Your task to perform on an android device: clear history in the chrome app Image 0: 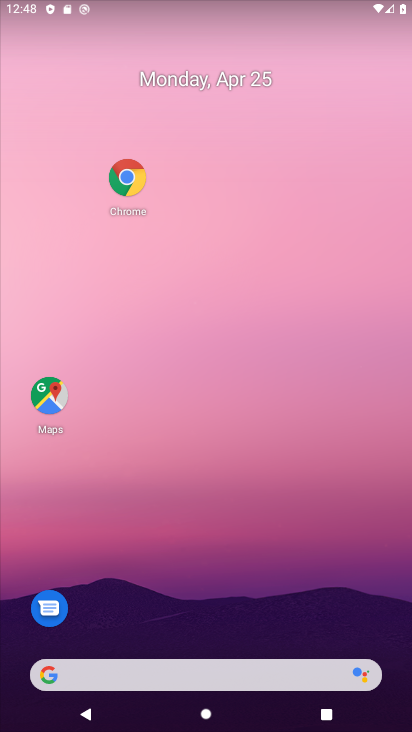
Step 0: drag from (256, 443) to (306, 6)
Your task to perform on an android device: clear history in the chrome app Image 1: 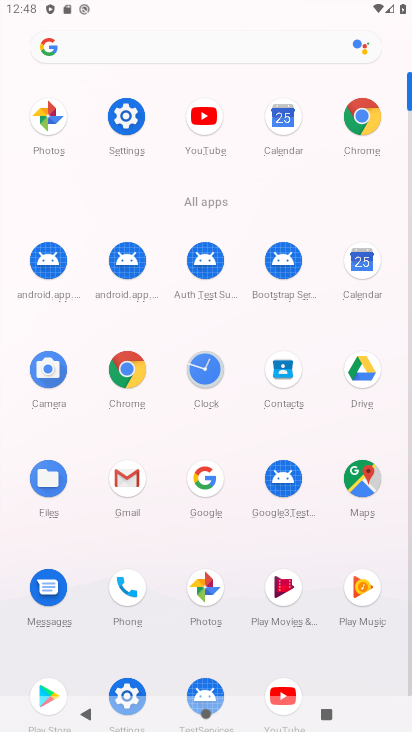
Step 1: click (129, 385)
Your task to perform on an android device: clear history in the chrome app Image 2: 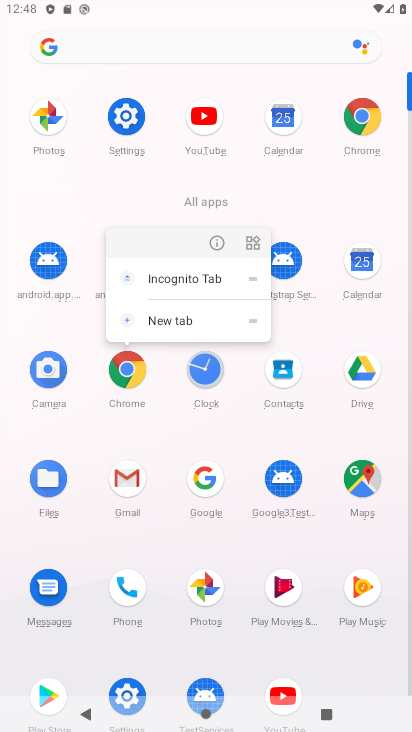
Step 2: click (137, 363)
Your task to perform on an android device: clear history in the chrome app Image 3: 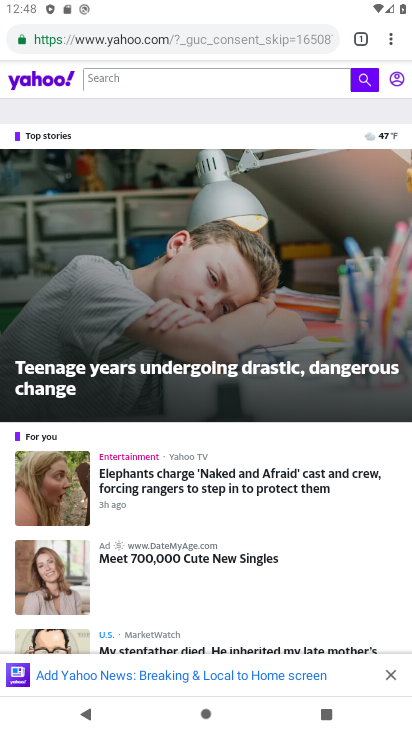
Step 3: drag from (390, 38) to (268, 275)
Your task to perform on an android device: clear history in the chrome app Image 4: 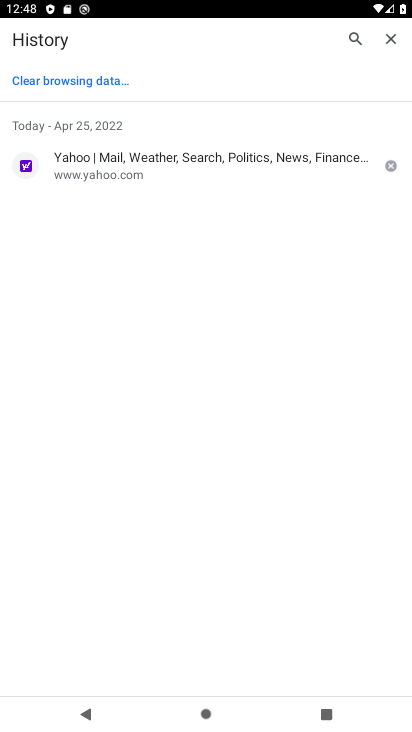
Step 4: click (102, 78)
Your task to perform on an android device: clear history in the chrome app Image 5: 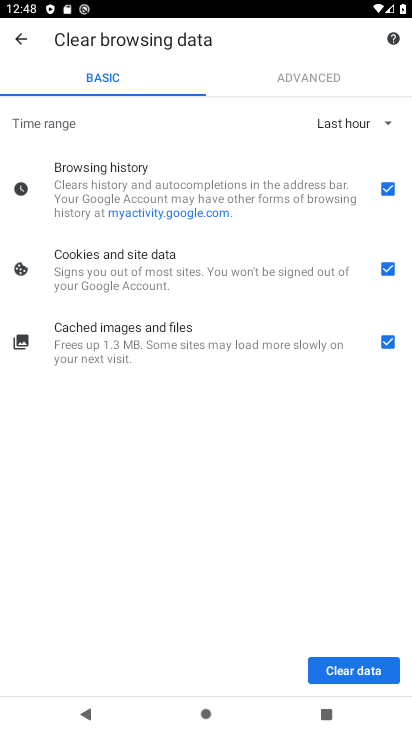
Step 5: click (358, 672)
Your task to perform on an android device: clear history in the chrome app Image 6: 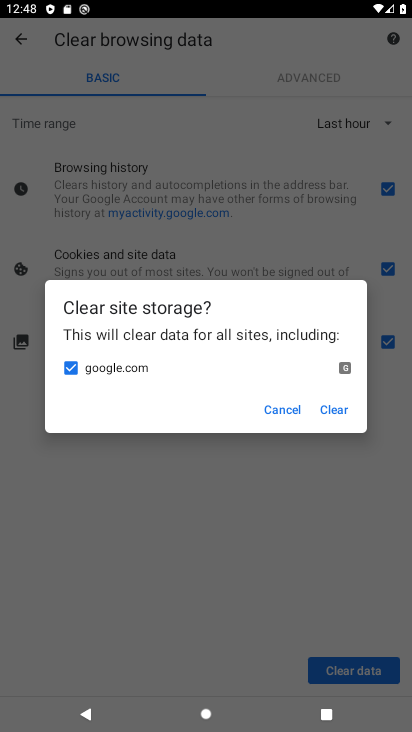
Step 6: click (337, 407)
Your task to perform on an android device: clear history in the chrome app Image 7: 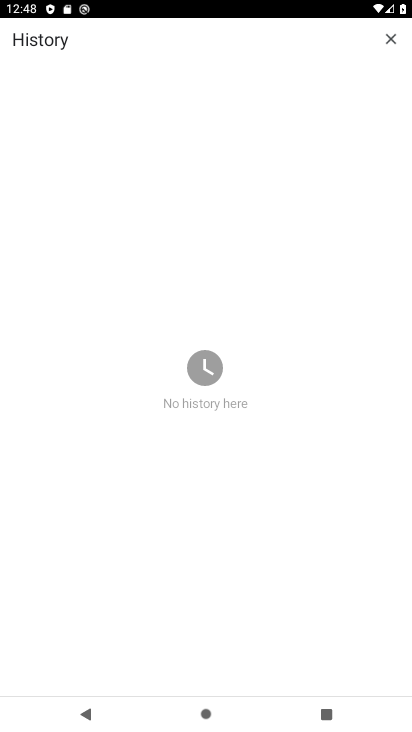
Step 7: task complete